Your task to perform on an android device: Play the last video I watched on Youtube Image 0: 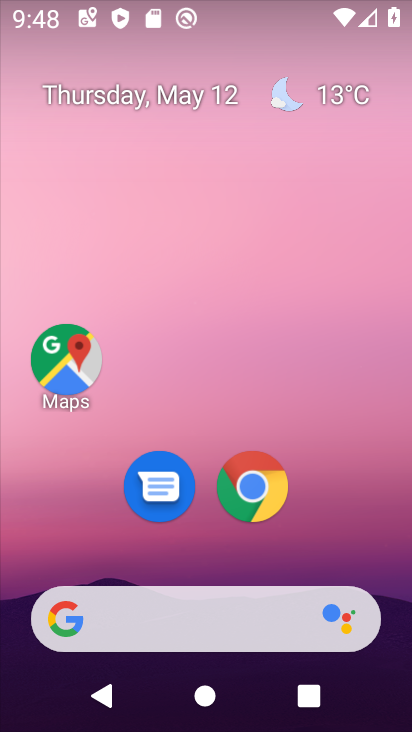
Step 0: drag from (394, 556) to (284, 105)
Your task to perform on an android device: Play the last video I watched on Youtube Image 1: 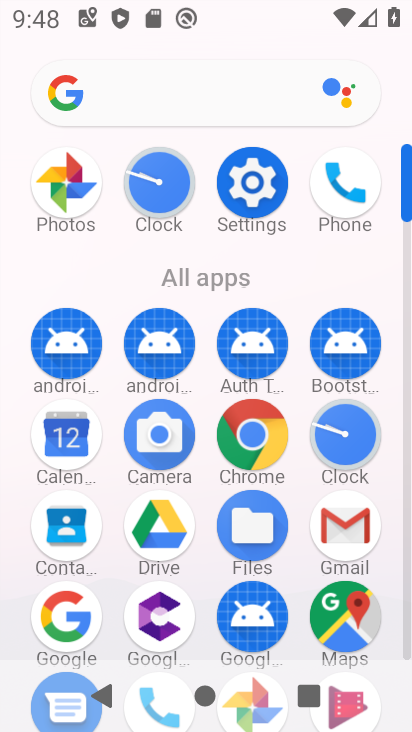
Step 1: drag from (282, 266) to (83, 29)
Your task to perform on an android device: Play the last video I watched on Youtube Image 2: 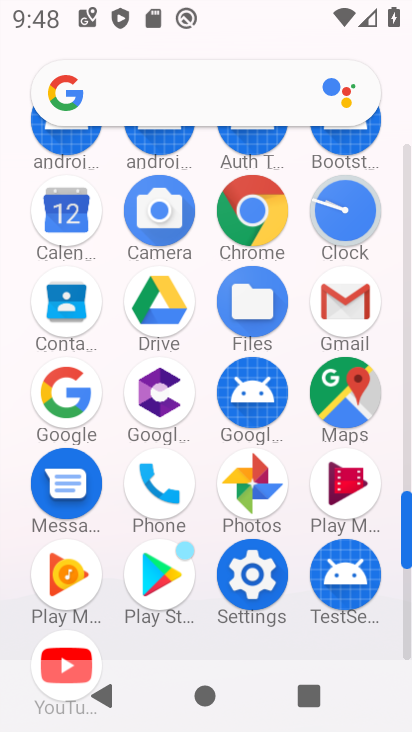
Step 2: click (67, 649)
Your task to perform on an android device: Play the last video I watched on Youtube Image 3: 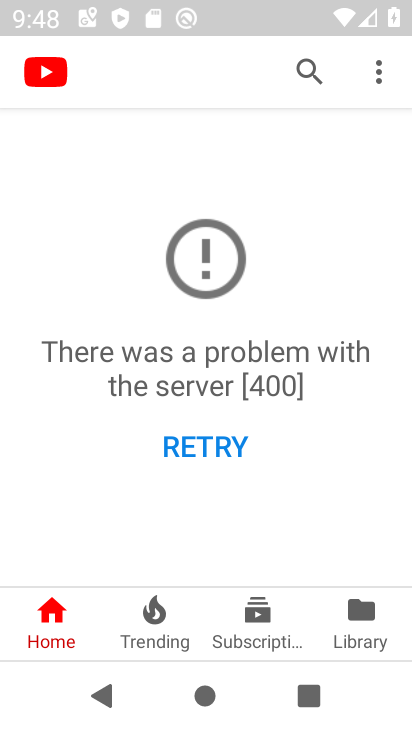
Step 3: click (360, 614)
Your task to perform on an android device: Play the last video I watched on Youtube Image 4: 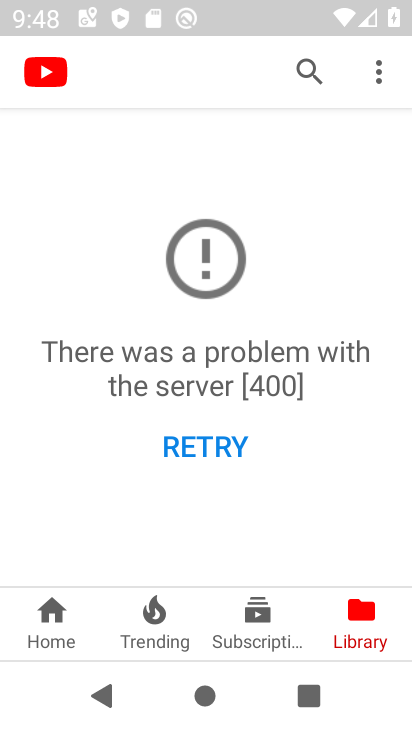
Step 4: task complete